Your task to perform on an android device: read, delete, or share a saved page in the chrome app Image 0: 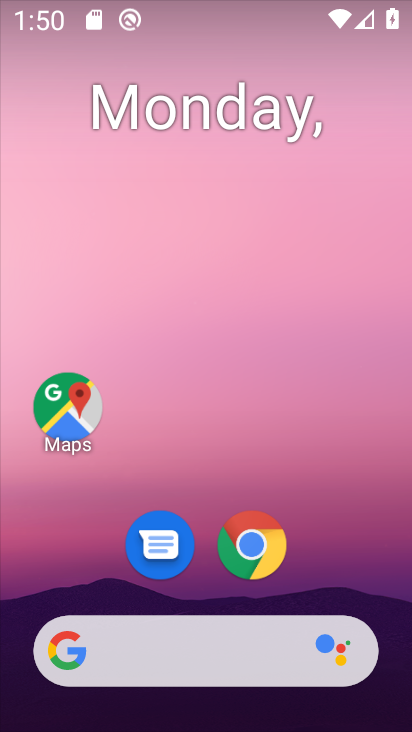
Step 0: click (275, 552)
Your task to perform on an android device: read, delete, or share a saved page in the chrome app Image 1: 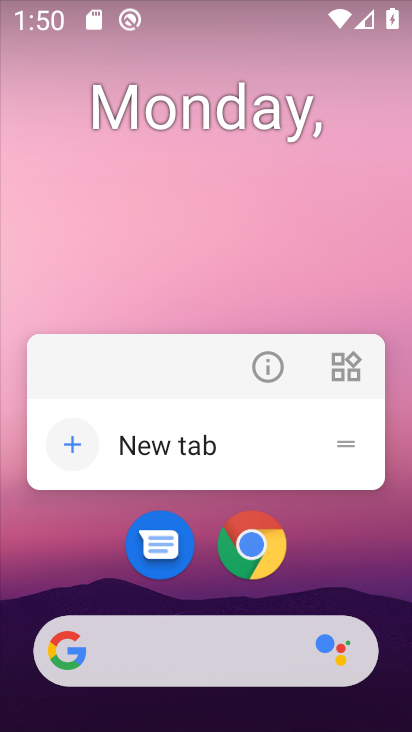
Step 1: click (267, 558)
Your task to perform on an android device: read, delete, or share a saved page in the chrome app Image 2: 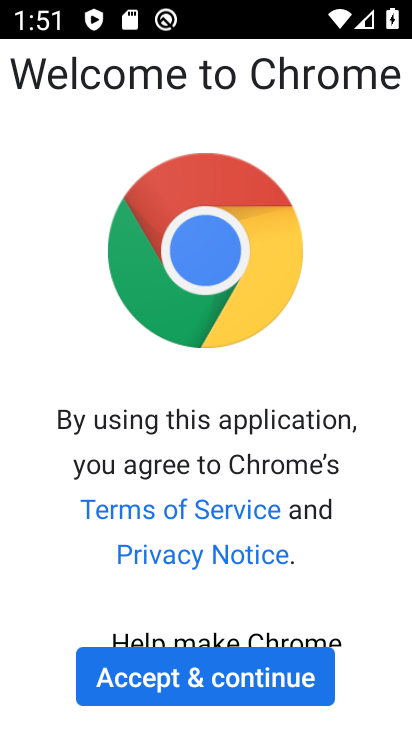
Step 2: click (282, 671)
Your task to perform on an android device: read, delete, or share a saved page in the chrome app Image 3: 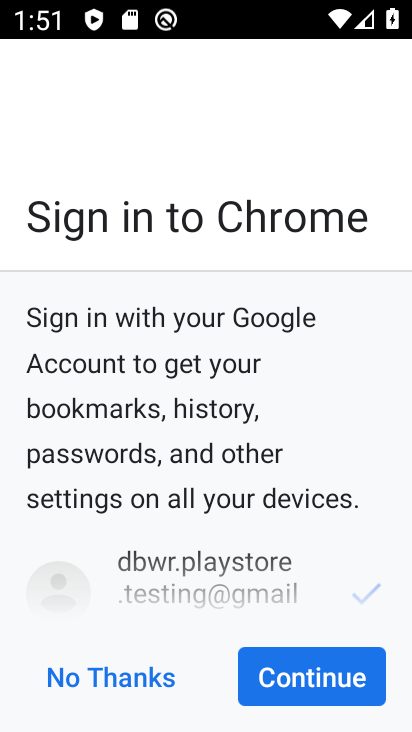
Step 3: click (284, 675)
Your task to perform on an android device: read, delete, or share a saved page in the chrome app Image 4: 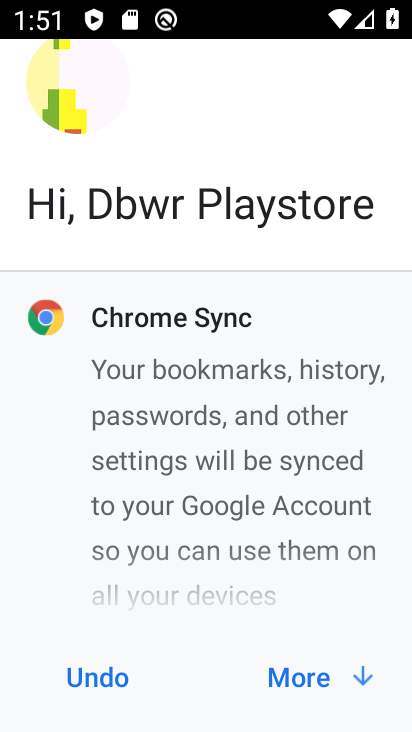
Step 4: click (284, 676)
Your task to perform on an android device: read, delete, or share a saved page in the chrome app Image 5: 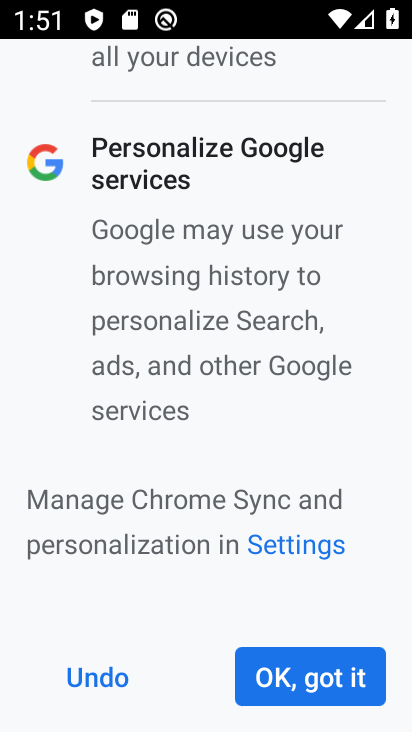
Step 5: click (284, 676)
Your task to perform on an android device: read, delete, or share a saved page in the chrome app Image 6: 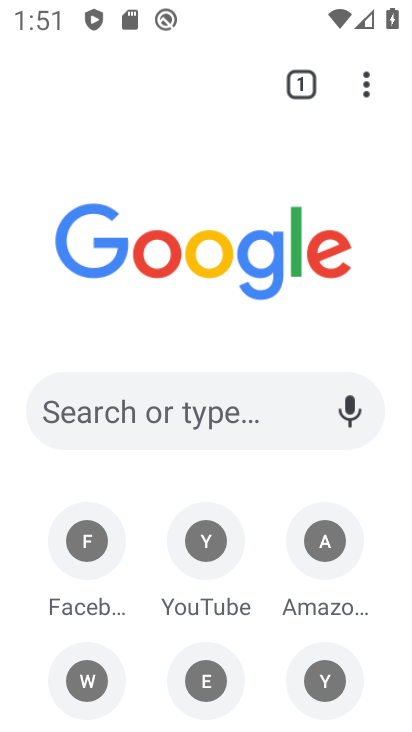
Step 6: click (374, 90)
Your task to perform on an android device: read, delete, or share a saved page in the chrome app Image 7: 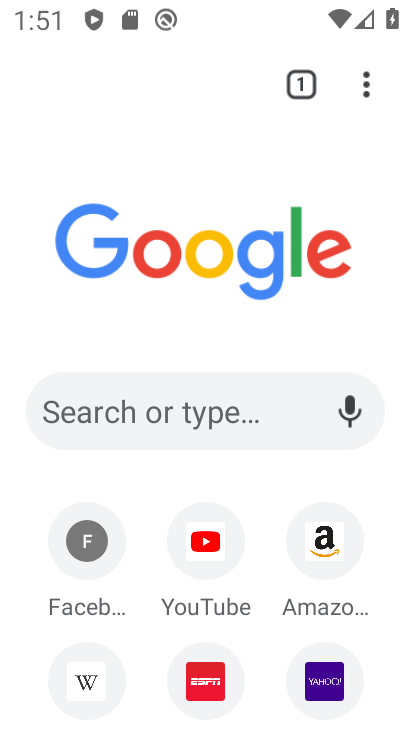
Step 7: drag from (371, 91) to (284, 346)
Your task to perform on an android device: read, delete, or share a saved page in the chrome app Image 8: 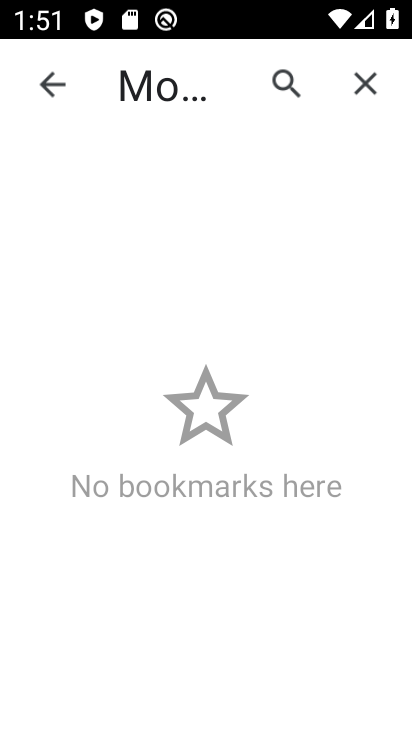
Step 8: press back button
Your task to perform on an android device: read, delete, or share a saved page in the chrome app Image 9: 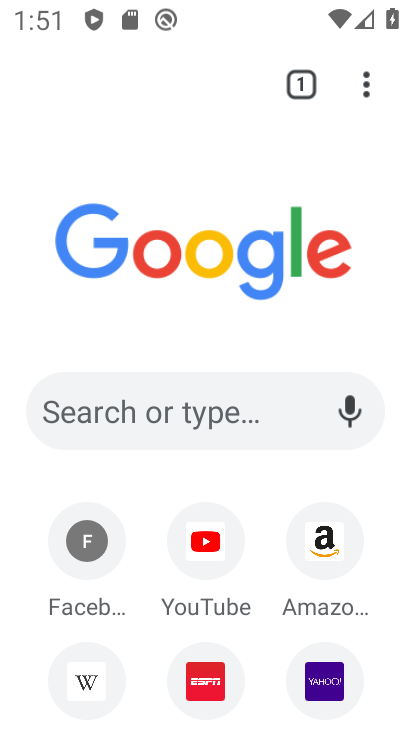
Step 9: drag from (355, 86) to (251, 542)
Your task to perform on an android device: read, delete, or share a saved page in the chrome app Image 10: 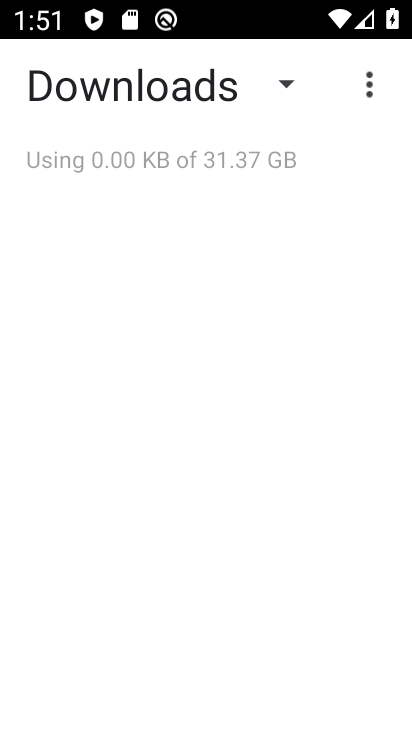
Step 10: click (246, 98)
Your task to perform on an android device: read, delete, or share a saved page in the chrome app Image 11: 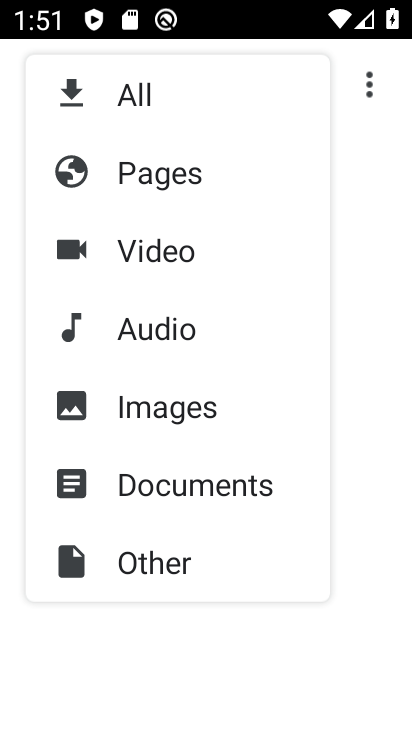
Step 11: click (224, 181)
Your task to perform on an android device: read, delete, or share a saved page in the chrome app Image 12: 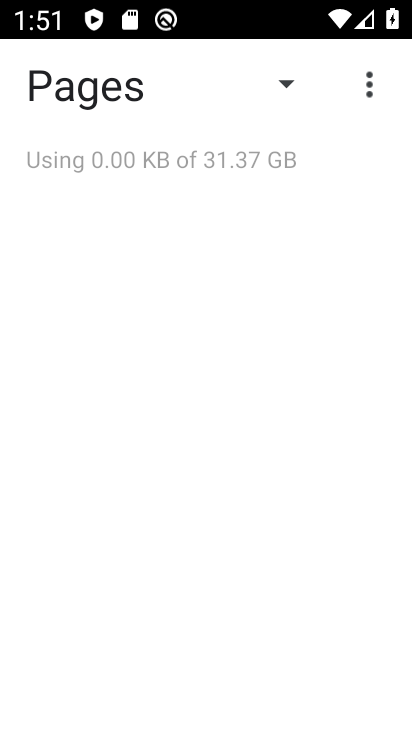
Step 12: task complete